Your task to perform on an android device: turn on bluetooth scan Image 0: 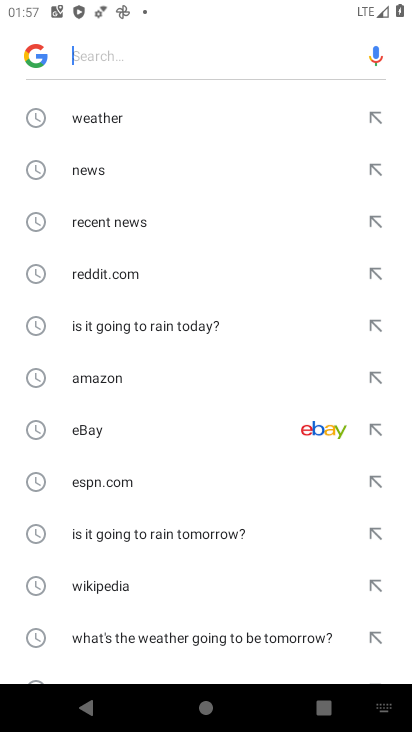
Step 0: press home button
Your task to perform on an android device: turn on bluetooth scan Image 1: 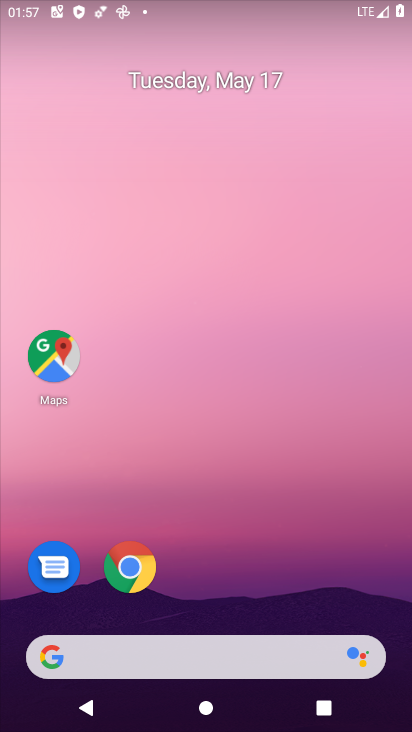
Step 1: drag from (391, 615) to (332, 56)
Your task to perform on an android device: turn on bluetooth scan Image 2: 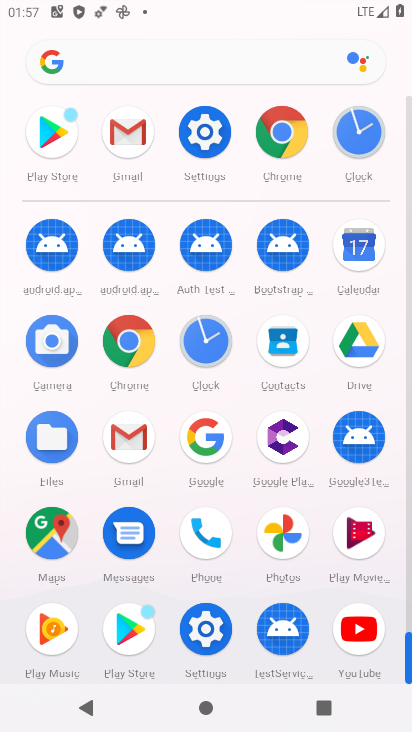
Step 2: click (208, 631)
Your task to perform on an android device: turn on bluetooth scan Image 3: 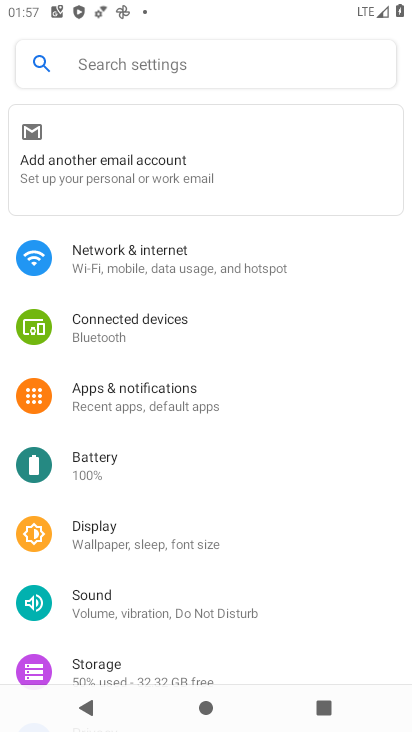
Step 3: drag from (319, 646) to (353, 126)
Your task to perform on an android device: turn on bluetooth scan Image 4: 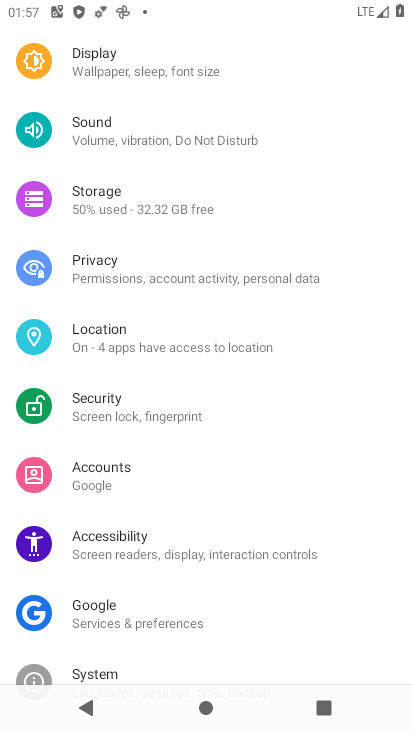
Step 4: click (94, 329)
Your task to perform on an android device: turn on bluetooth scan Image 5: 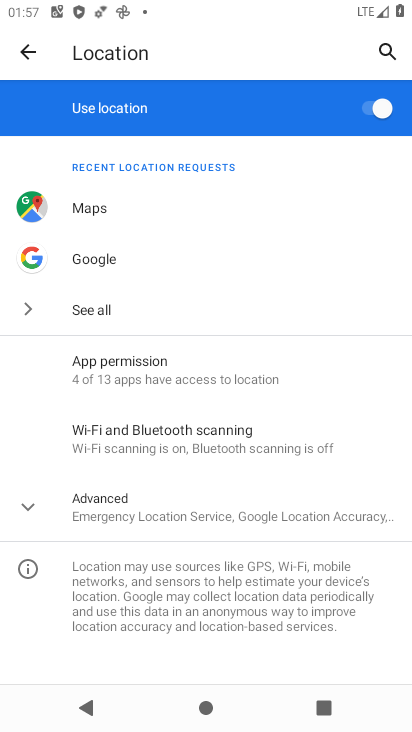
Step 5: click (140, 430)
Your task to perform on an android device: turn on bluetooth scan Image 6: 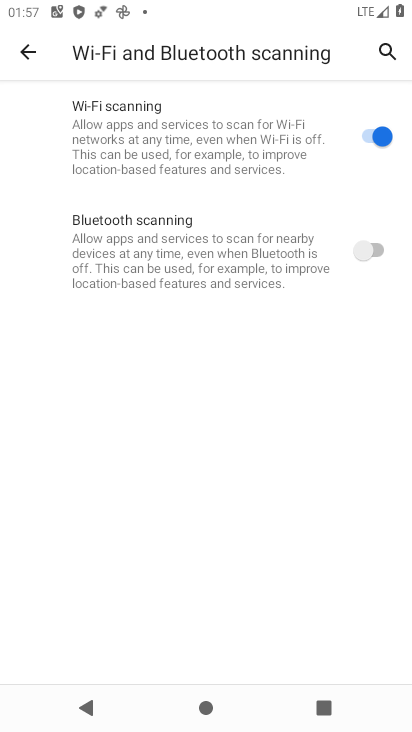
Step 6: click (377, 248)
Your task to perform on an android device: turn on bluetooth scan Image 7: 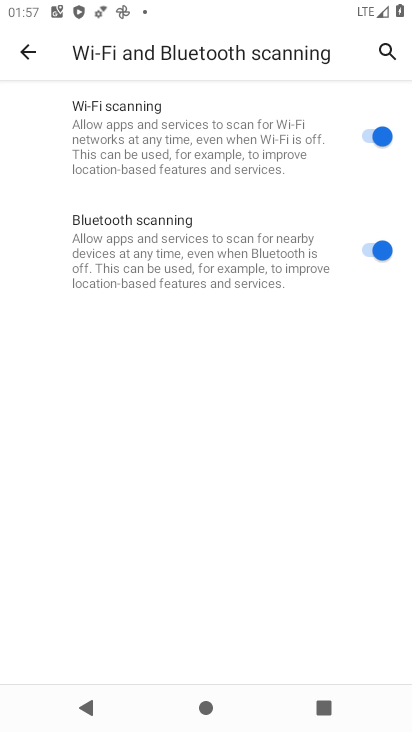
Step 7: task complete